Your task to perform on an android device: delete location history Image 0: 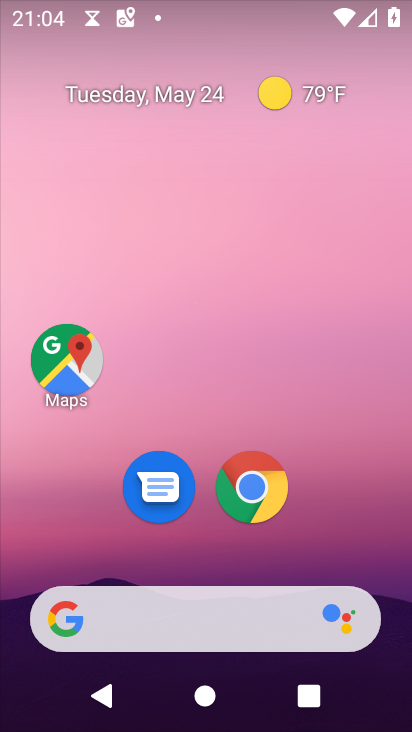
Step 0: press home button
Your task to perform on an android device: delete location history Image 1: 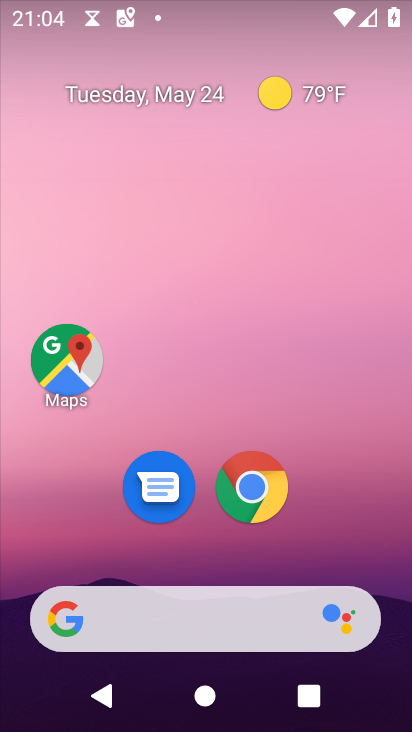
Step 1: click (54, 373)
Your task to perform on an android device: delete location history Image 2: 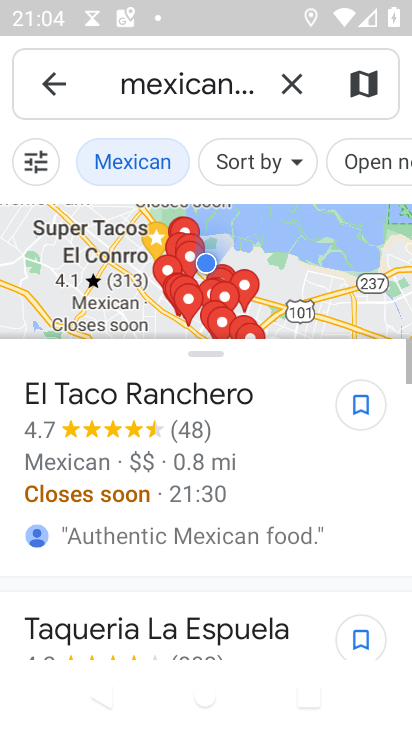
Step 2: click (58, 84)
Your task to perform on an android device: delete location history Image 3: 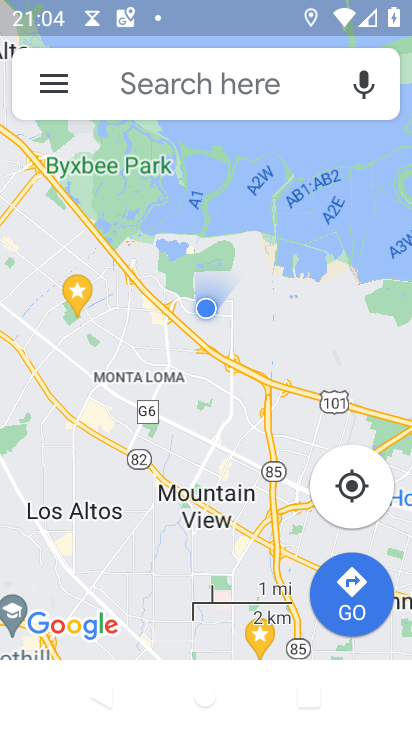
Step 3: click (58, 84)
Your task to perform on an android device: delete location history Image 4: 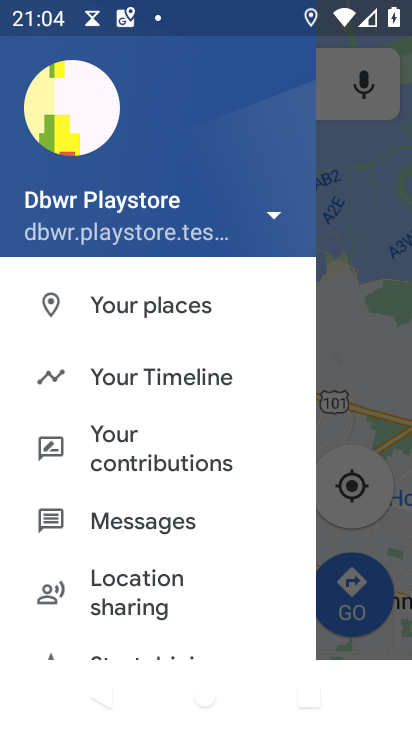
Step 4: click (125, 379)
Your task to perform on an android device: delete location history Image 5: 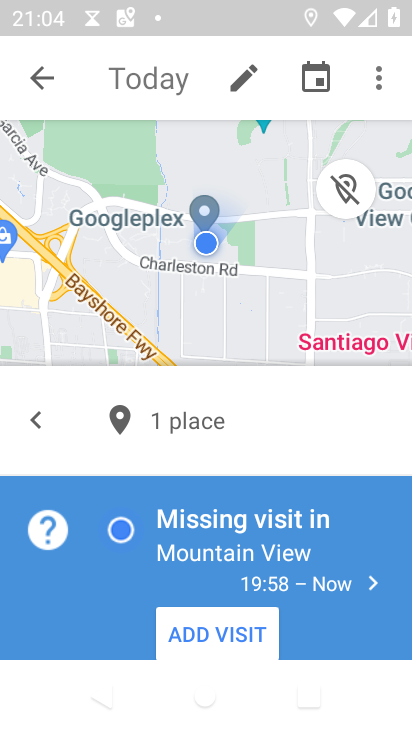
Step 5: click (390, 74)
Your task to perform on an android device: delete location history Image 6: 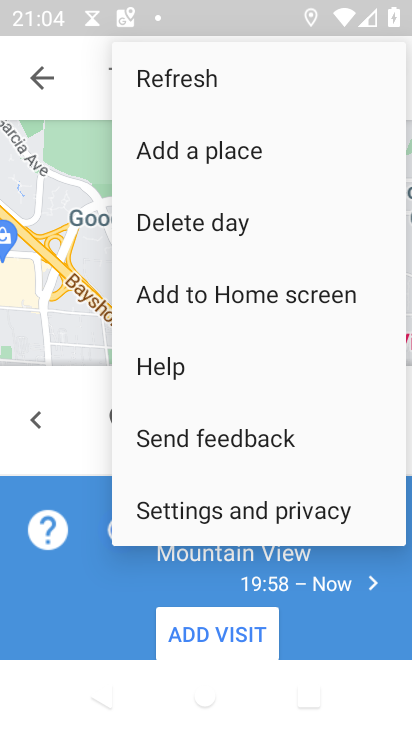
Step 6: click (153, 515)
Your task to perform on an android device: delete location history Image 7: 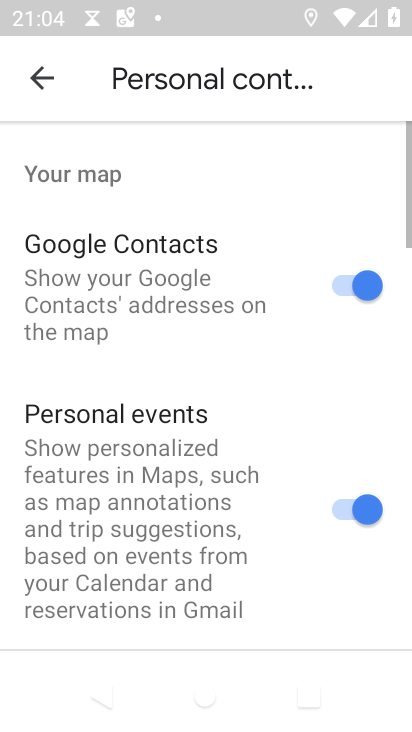
Step 7: drag from (168, 553) to (188, 253)
Your task to perform on an android device: delete location history Image 8: 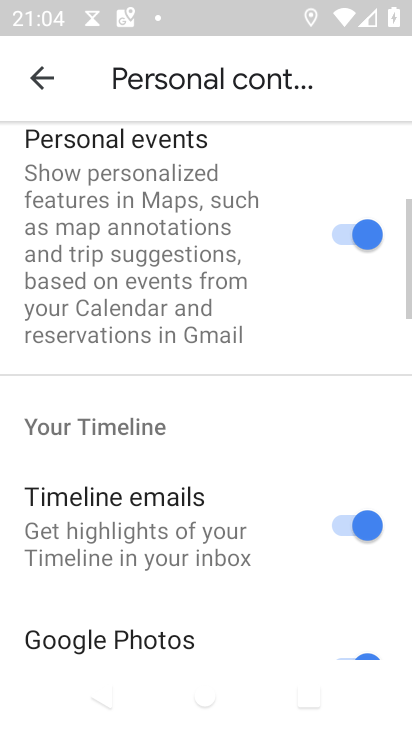
Step 8: drag from (197, 560) to (188, 267)
Your task to perform on an android device: delete location history Image 9: 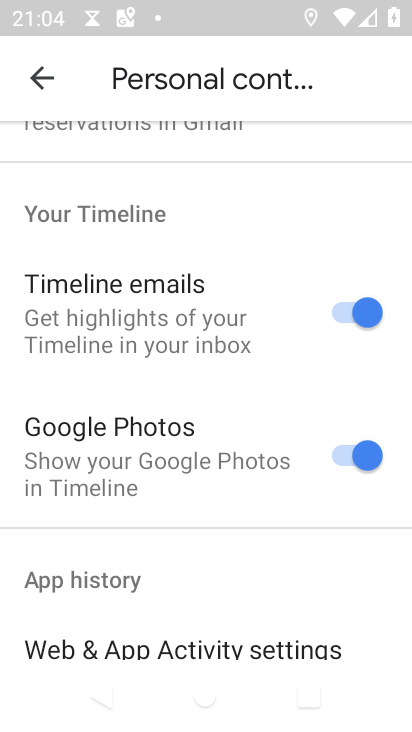
Step 9: drag from (187, 509) to (178, 253)
Your task to perform on an android device: delete location history Image 10: 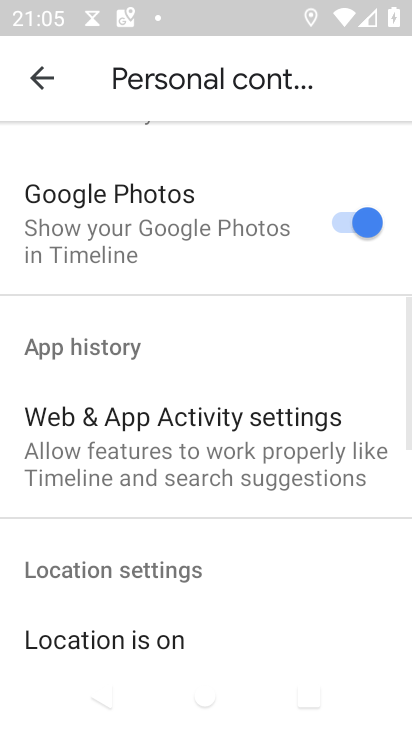
Step 10: drag from (192, 539) to (185, 368)
Your task to perform on an android device: delete location history Image 11: 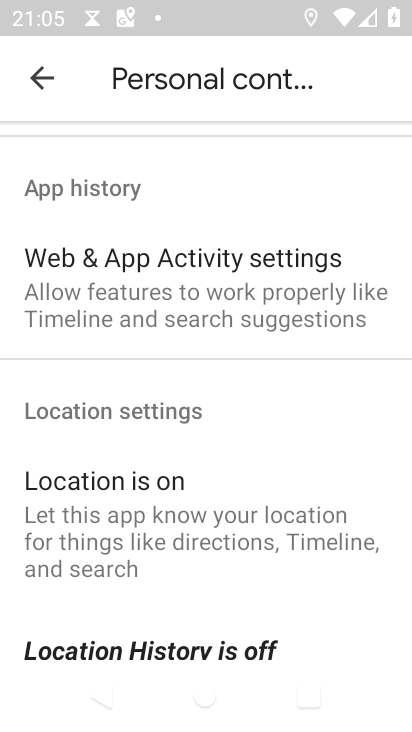
Step 11: drag from (213, 529) to (222, 259)
Your task to perform on an android device: delete location history Image 12: 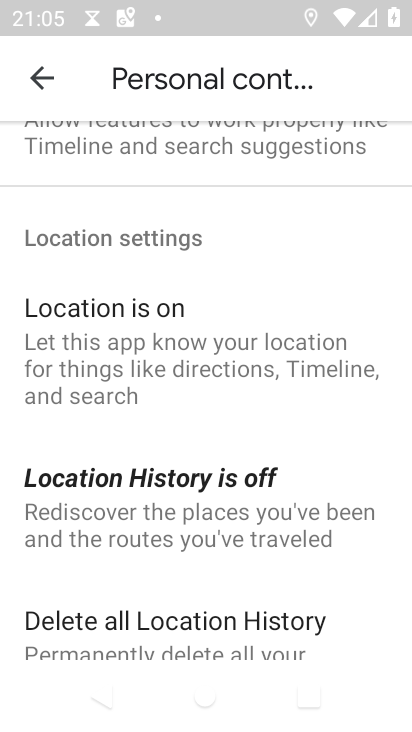
Step 12: click (188, 622)
Your task to perform on an android device: delete location history Image 13: 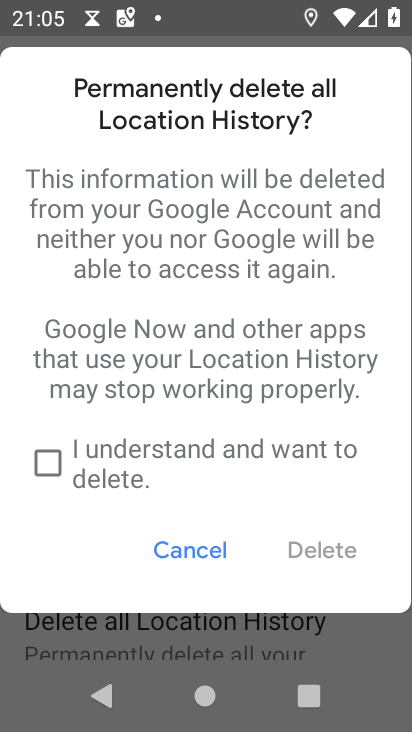
Step 13: click (55, 472)
Your task to perform on an android device: delete location history Image 14: 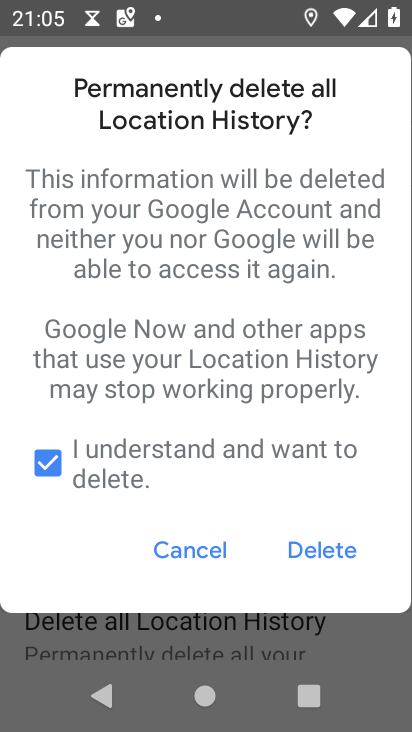
Step 14: click (305, 547)
Your task to perform on an android device: delete location history Image 15: 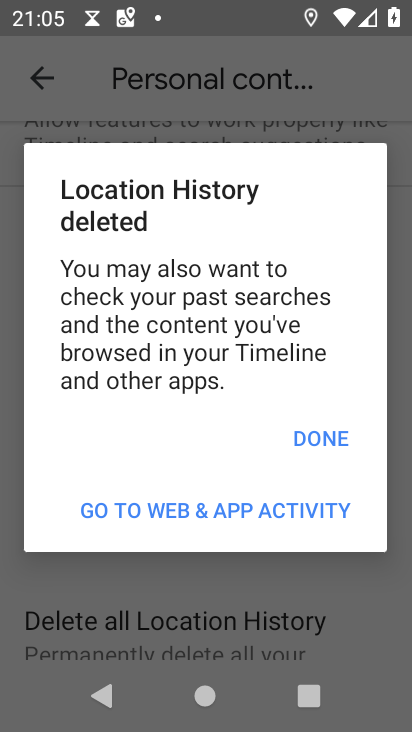
Step 15: click (334, 445)
Your task to perform on an android device: delete location history Image 16: 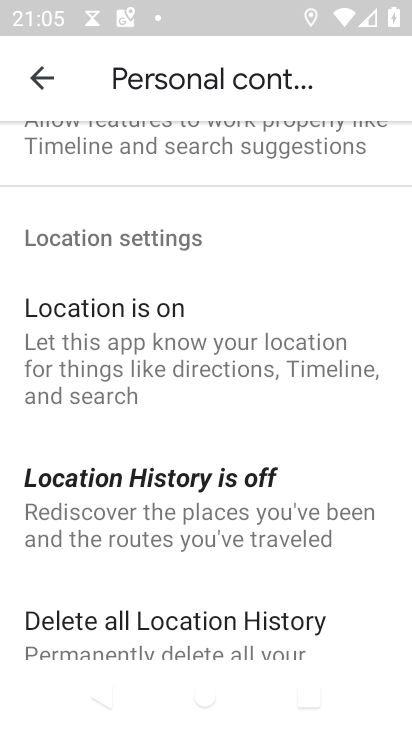
Step 16: task complete